Your task to perform on an android device: What's on my calendar today? Image 0: 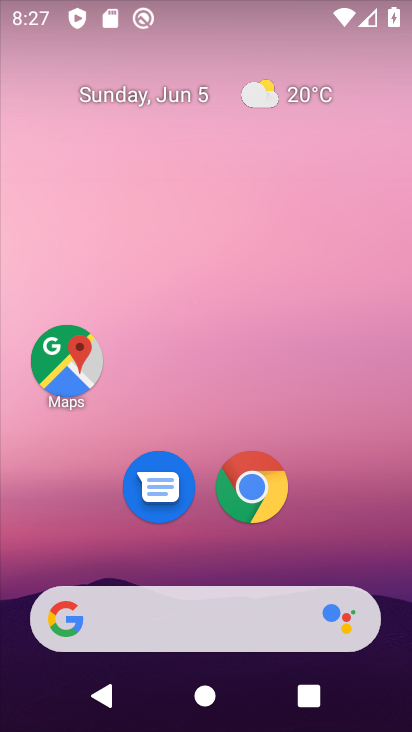
Step 0: drag from (206, 591) to (245, 135)
Your task to perform on an android device: What's on my calendar today? Image 1: 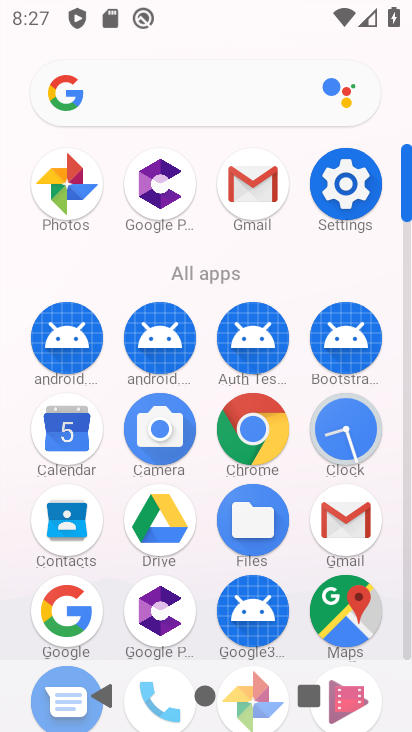
Step 1: click (56, 451)
Your task to perform on an android device: What's on my calendar today? Image 2: 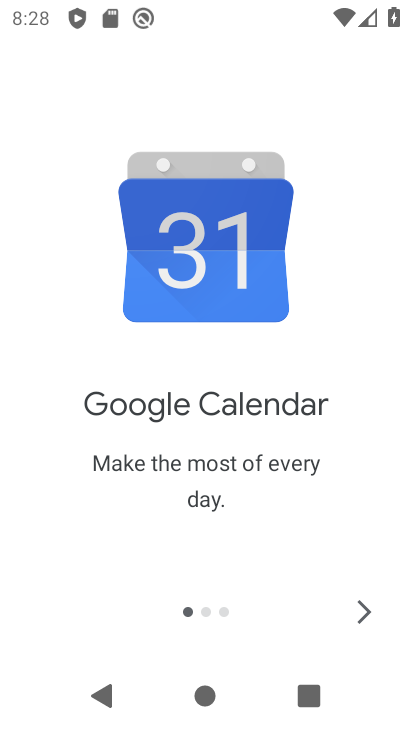
Step 2: click (367, 614)
Your task to perform on an android device: What's on my calendar today? Image 3: 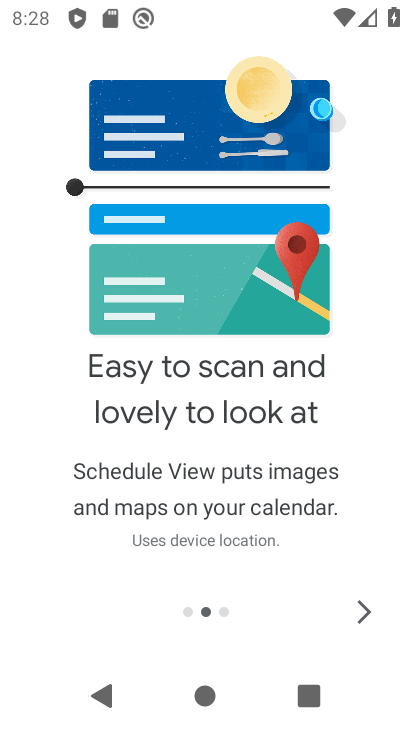
Step 3: click (367, 614)
Your task to perform on an android device: What's on my calendar today? Image 4: 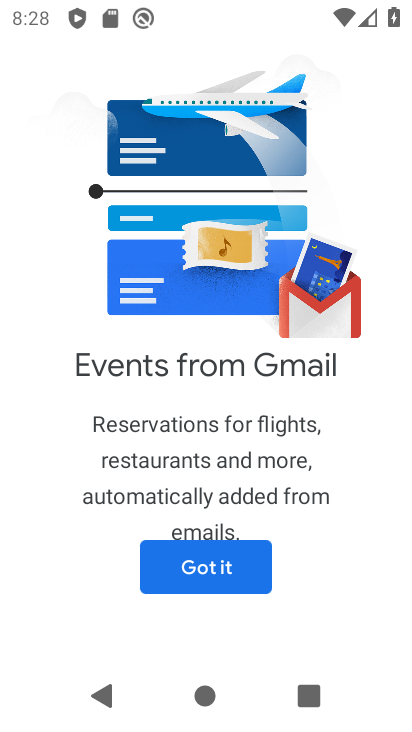
Step 4: click (234, 576)
Your task to perform on an android device: What's on my calendar today? Image 5: 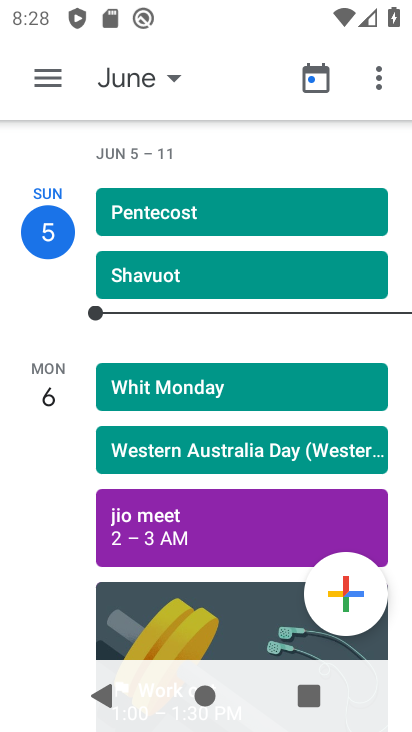
Step 5: task complete